Your task to perform on an android device: Open Google Chrome Image 0: 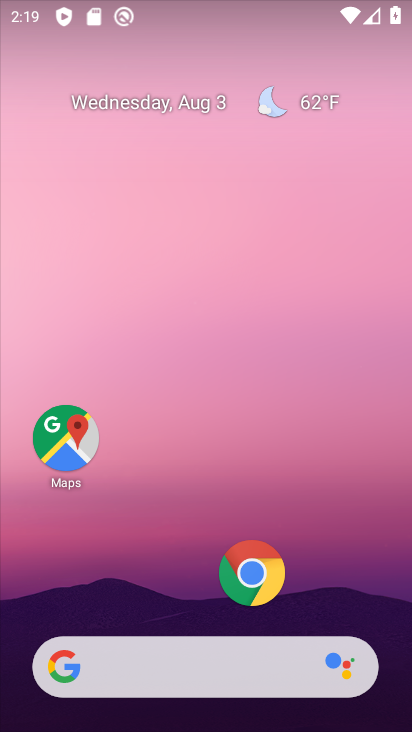
Step 0: click (264, 573)
Your task to perform on an android device: Open Google Chrome Image 1: 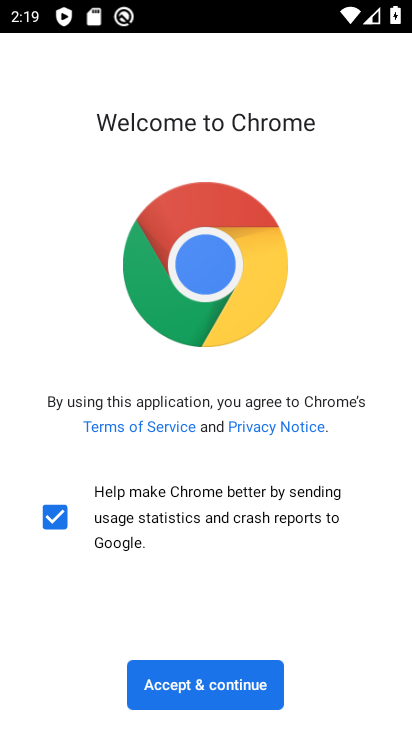
Step 1: click (213, 682)
Your task to perform on an android device: Open Google Chrome Image 2: 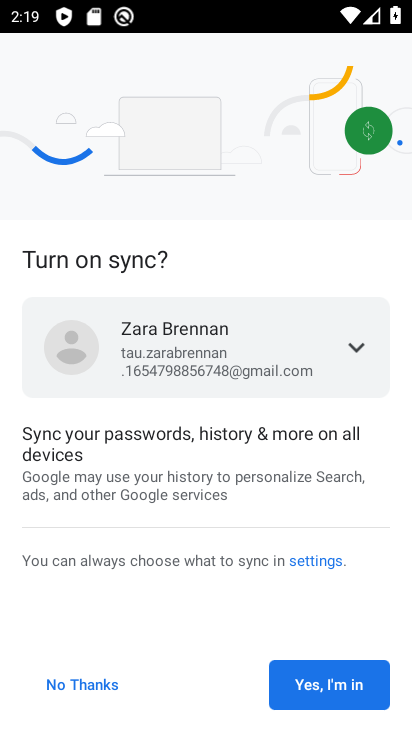
Step 2: click (329, 673)
Your task to perform on an android device: Open Google Chrome Image 3: 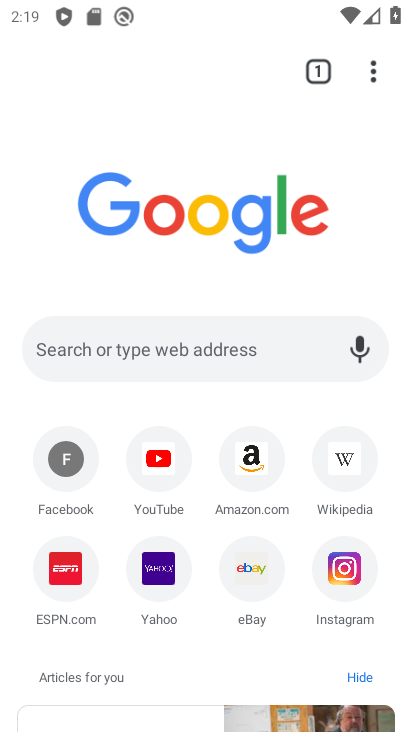
Step 3: task complete